Your task to perform on an android device: move a message to another label in the gmail app Image 0: 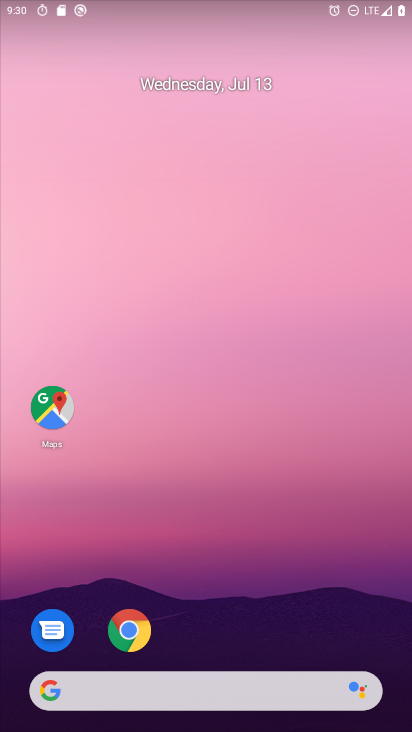
Step 0: drag from (382, 649) to (219, 55)
Your task to perform on an android device: move a message to another label in the gmail app Image 1: 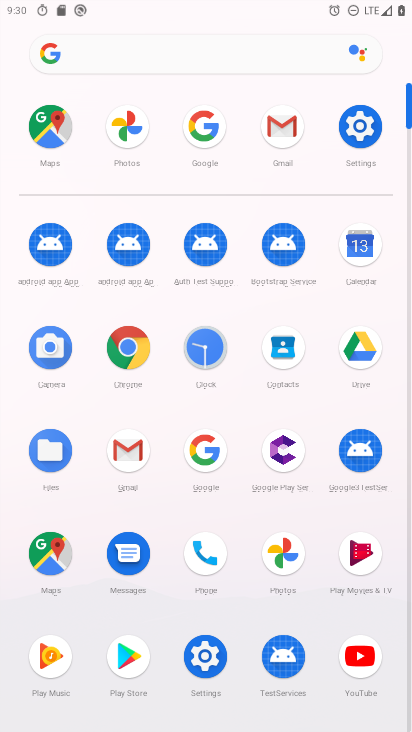
Step 1: click (105, 447)
Your task to perform on an android device: move a message to another label in the gmail app Image 2: 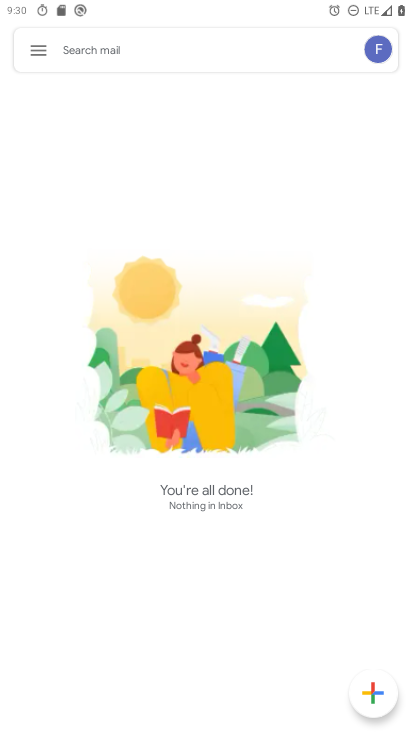
Step 2: task complete